Your task to perform on an android device: change notification settings in the gmail app Image 0: 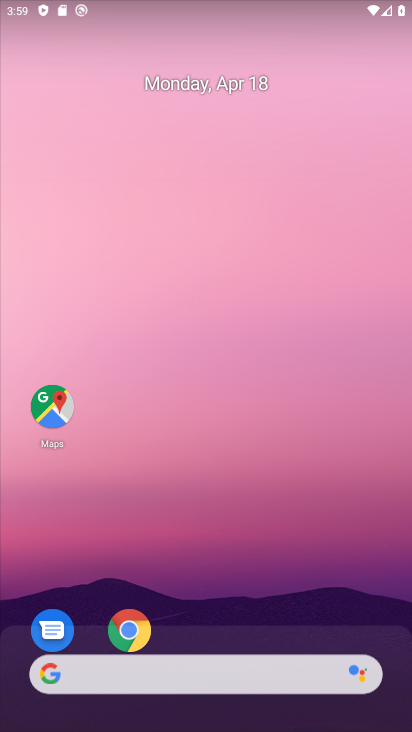
Step 0: drag from (195, 624) to (281, 131)
Your task to perform on an android device: change notification settings in the gmail app Image 1: 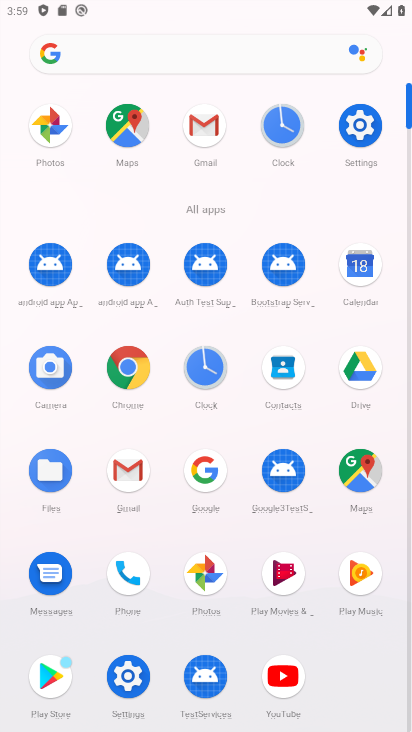
Step 1: click (207, 125)
Your task to perform on an android device: change notification settings in the gmail app Image 2: 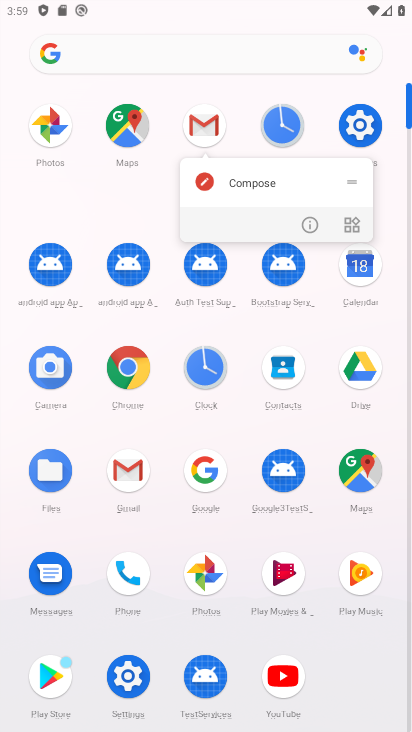
Step 2: click (207, 125)
Your task to perform on an android device: change notification settings in the gmail app Image 3: 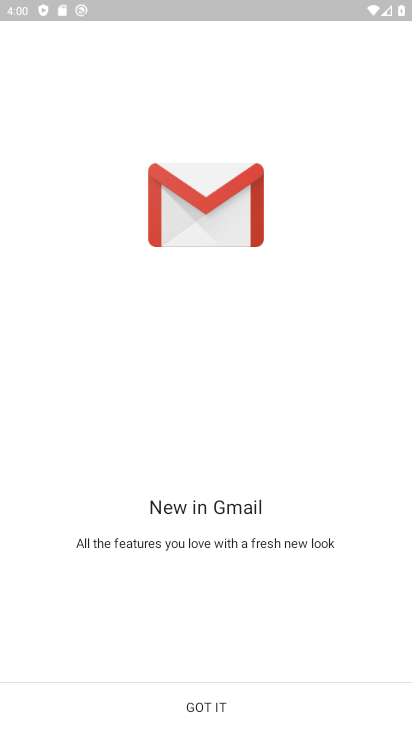
Step 3: click (208, 708)
Your task to perform on an android device: change notification settings in the gmail app Image 4: 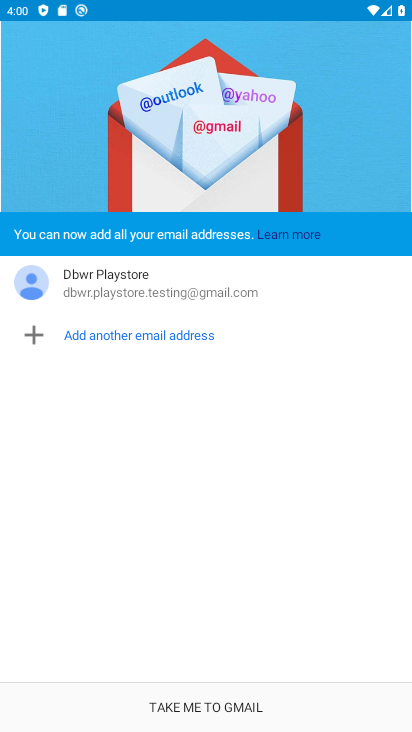
Step 4: click (208, 708)
Your task to perform on an android device: change notification settings in the gmail app Image 5: 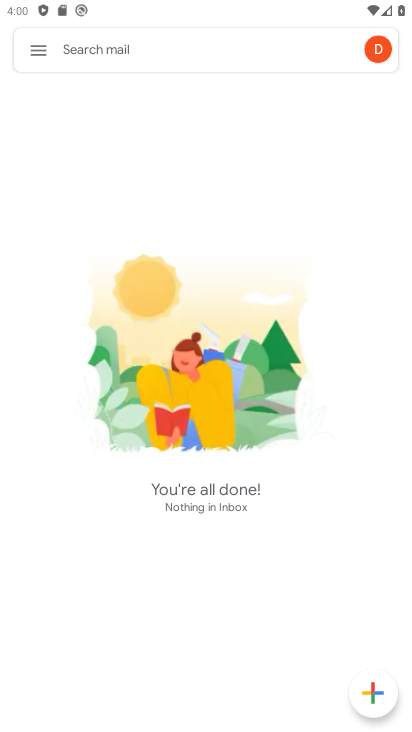
Step 5: click (37, 48)
Your task to perform on an android device: change notification settings in the gmail app Image 6: 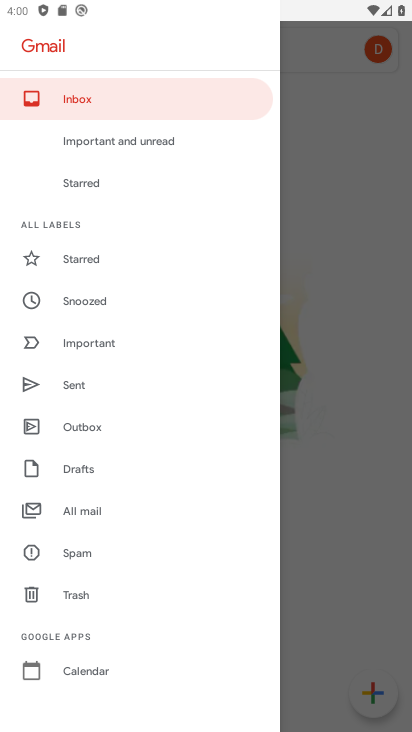
Step 6: drag from (152, 595) to (208, 353)
Your task to perform on an android device: change notification settings in the gmail app Image 7: 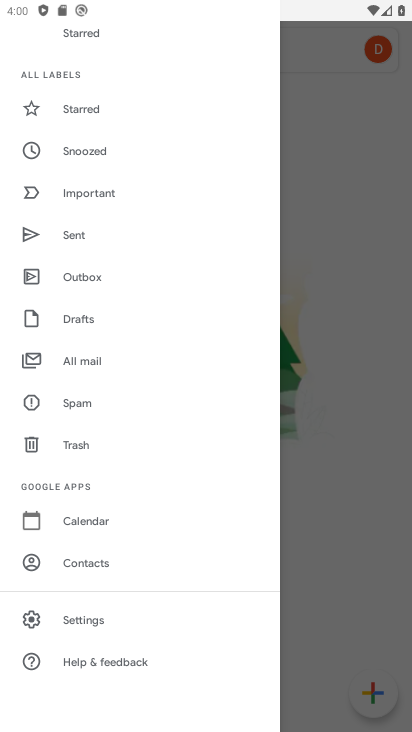
Step 7: click (82, 616)
Your task to perform on an android device: change notification settings in the gmail app Image 8: 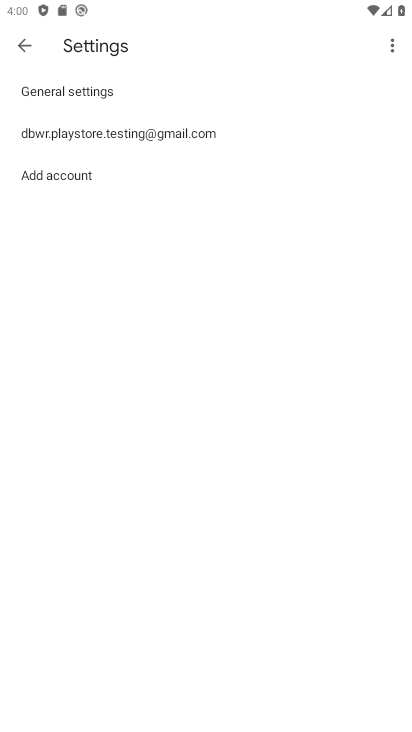
Step 8: click (227, 126)
Your task to perform on an android device: change notification settings in the gmail app Image 9: 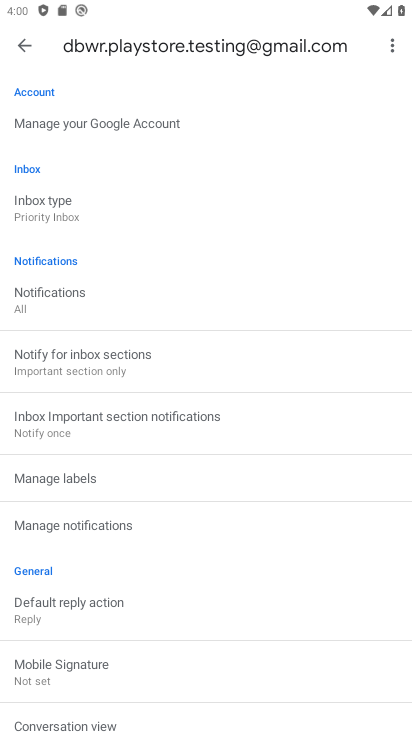
Step 9: click (72, 528)
Your task to perform on an android device: change notification settings in the gmail app Image 10: 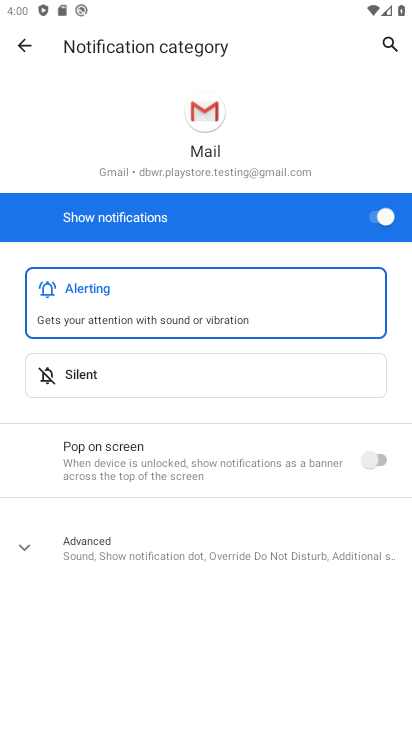
Step 10: click (377, 214)
Your task to perform on an android device: change notification settings in the gmail app Image 11: 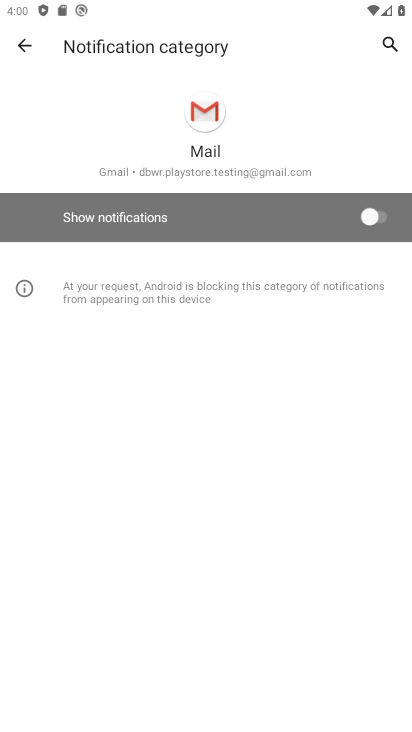
Step 11: task complete